Your task to perform on an android device: turn on priority inbox in the gmail app Image 0: 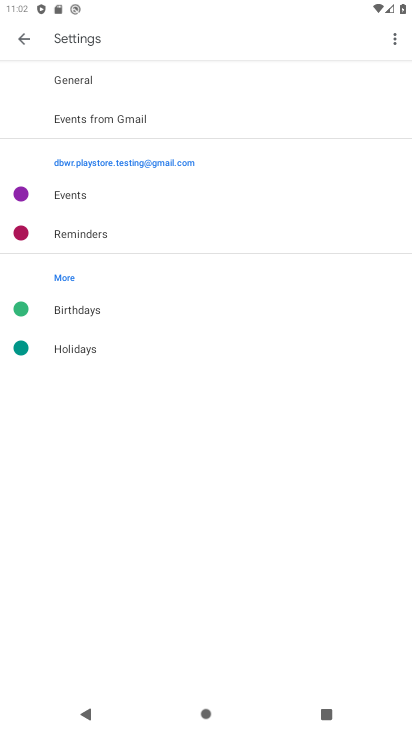
Step 0: press home button
Your task to perform on an android device: turn on priority inbox in the gmail app Image 1: 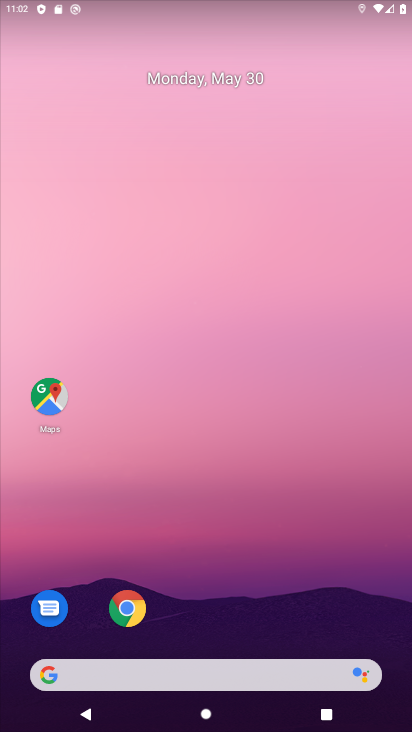
Step 1: drag from (263, 631) to (231, 1)
Your task to perform on an android device: turn on priority inbox in the gmail app Image 2: 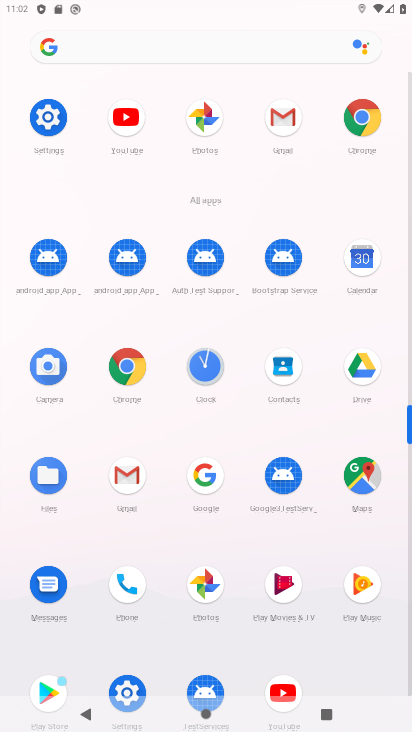
Step 2: click (288, 122)
Your task to perform on an android device: turn on priority inbox in the gmail app Image 3: 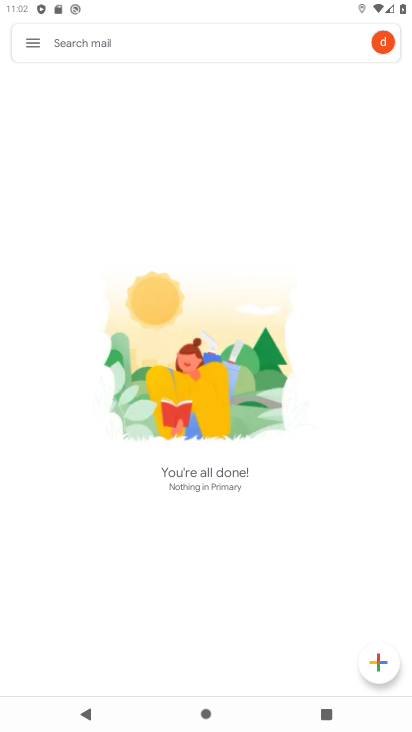
Step 3: click (26, 44)
Your task to perform on an android device: turn on priority inbox in the gmail app Image 4: 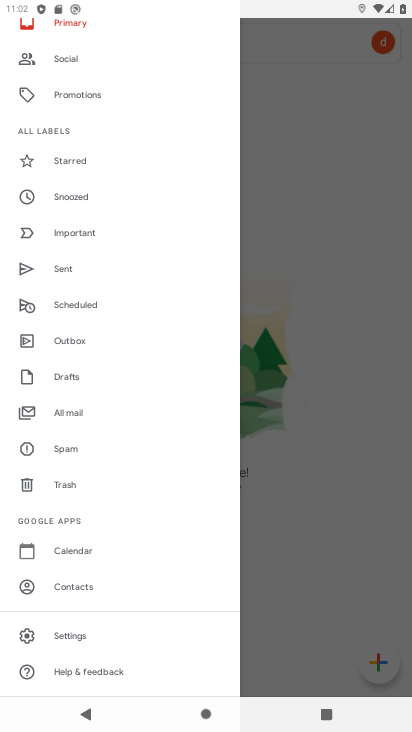
Step 4: click (69, 630)
Your task to perform on an android device: turn on priority inbox in the gmail app Image 5: 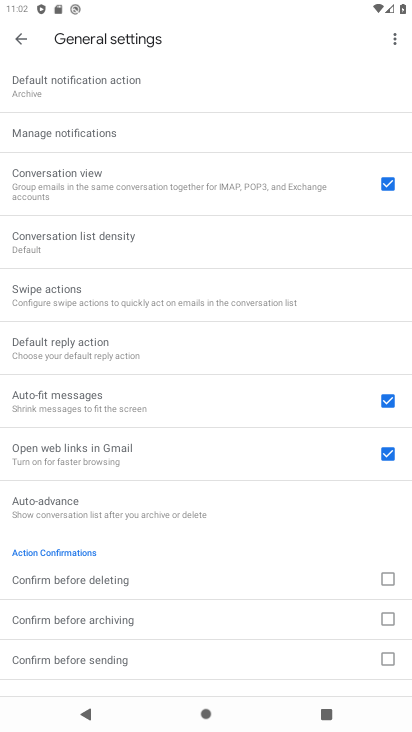
Step 5: click (11, 42)
Your task to perform on an android device: turn on priority inbox in the gmail app Image 6: 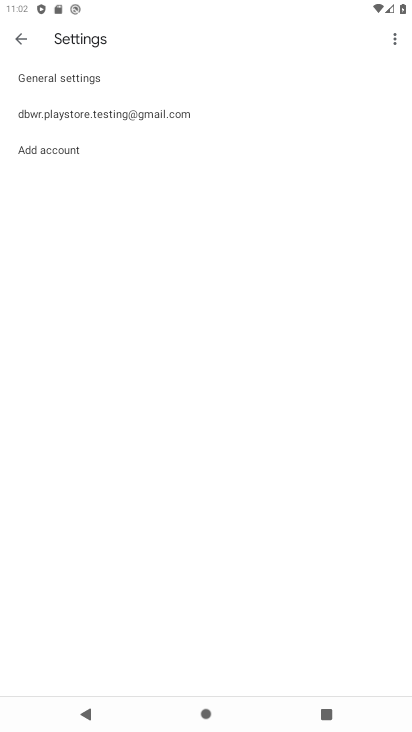
Step 6: click (65, 122)
Your task to perform on an android device: turn on priority inbox in the gmail app Image 7: 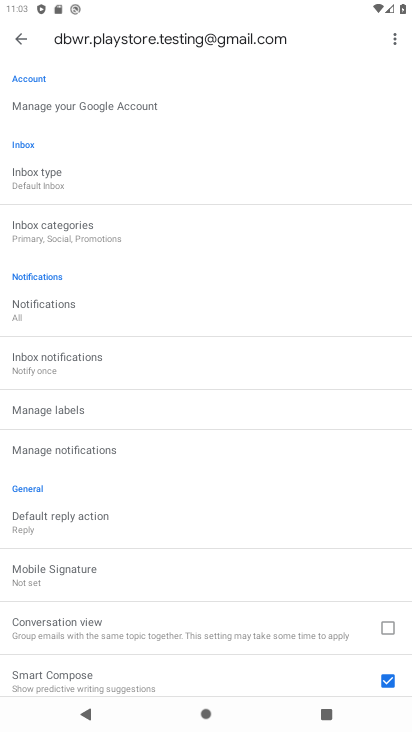
Step 7: click (34, 181)
Your task to perform on an android device: turn on priority inbox in the gmail app Image 8: 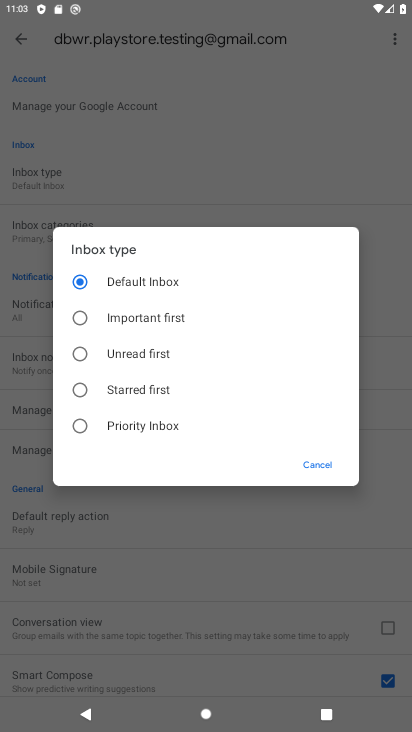
Step 8: click (77, 424)
Your task to perform on an android device: turn on priority inbox in the gmail app Image 9: 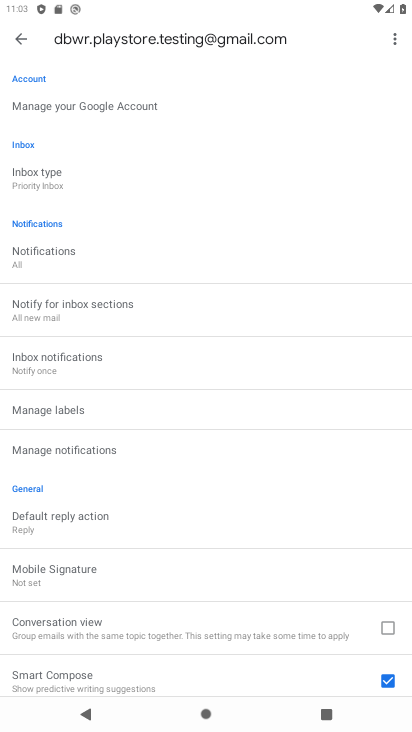
Step 9: task complete